Your task to perform on an android device: turn pop-ups on in chrome Image 0: 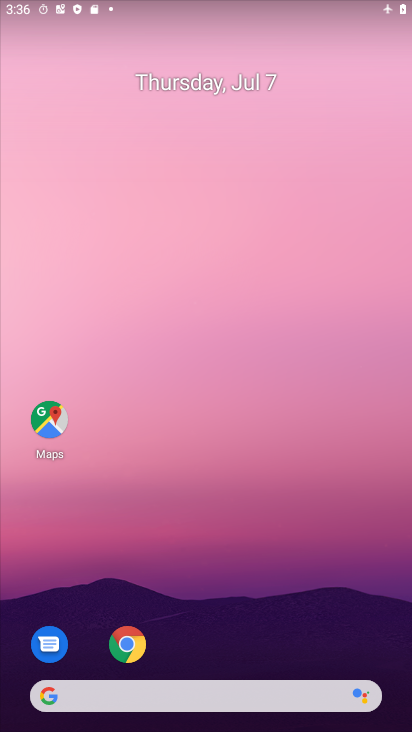
Step 0: drag from (217, 662) to (134, 84)
Your task to perform on an android device: turn pop-ups on in chrome Image 1: 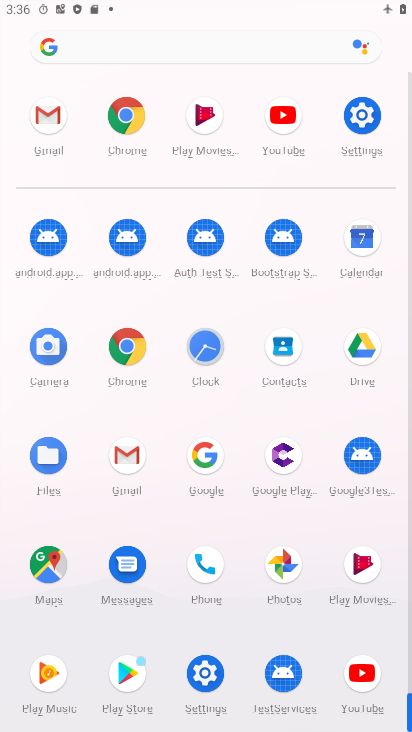
Step 1: click (128, 131)
Your task to perform on an android device: turn pop-ups on in chrome Image 2: 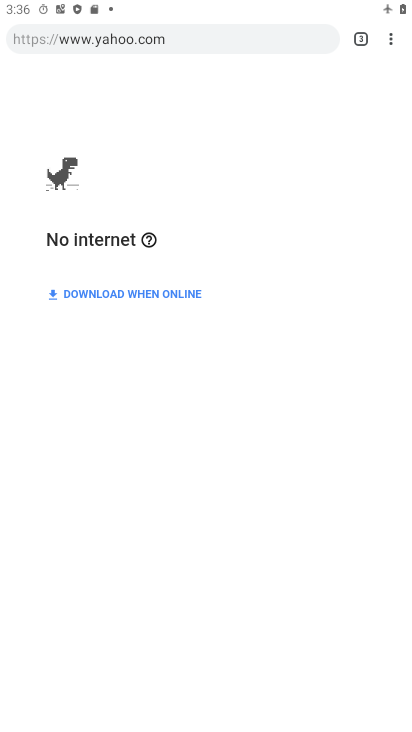
Step 2: click (385, 40)
Your task to perform on an android device: turn pop-ups on in chrome Image 3: 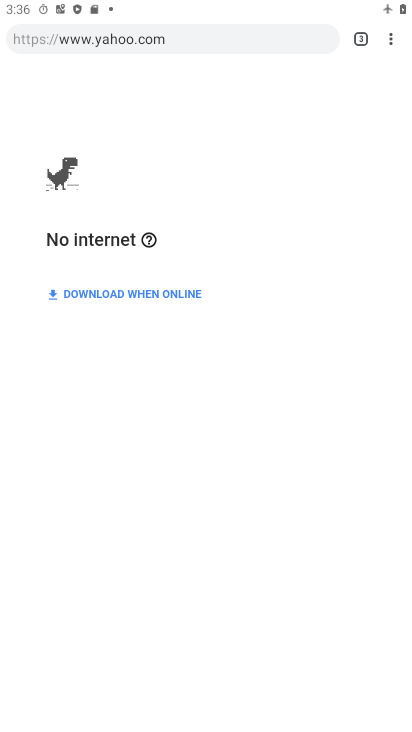
Step 3: press home button
Your task to perform on an android device: turn pop-ups on in chrome Image 4: 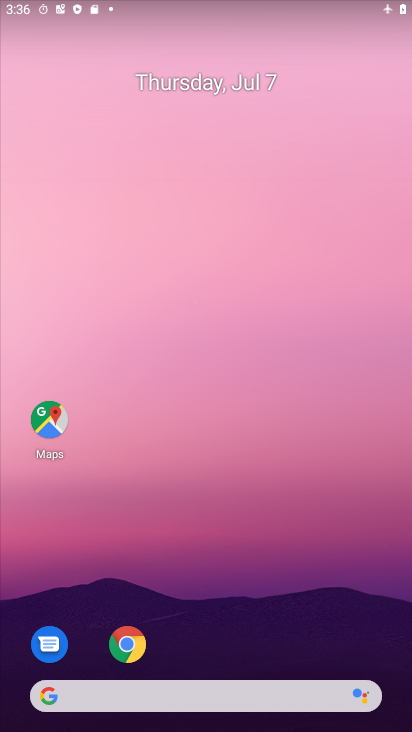
Step 4: drag from (206, 655) to (125, 263)
Your task to perform on an android device: turn pop-ups on in chrome Image 5: 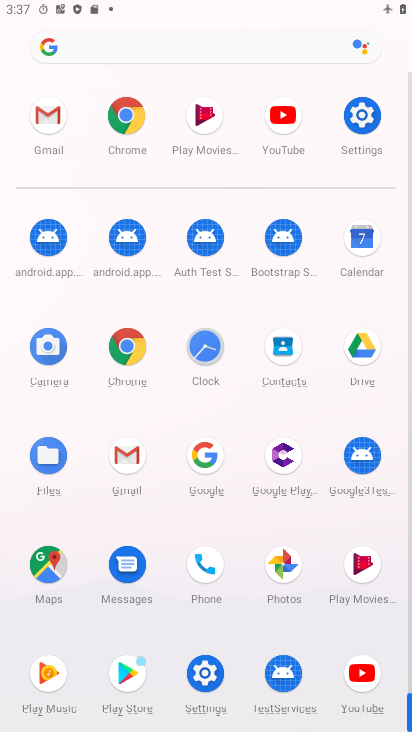
Step 5: click (124, 372)
Your task to perform on an android device: turn pop-ups on in chrome Image 6: 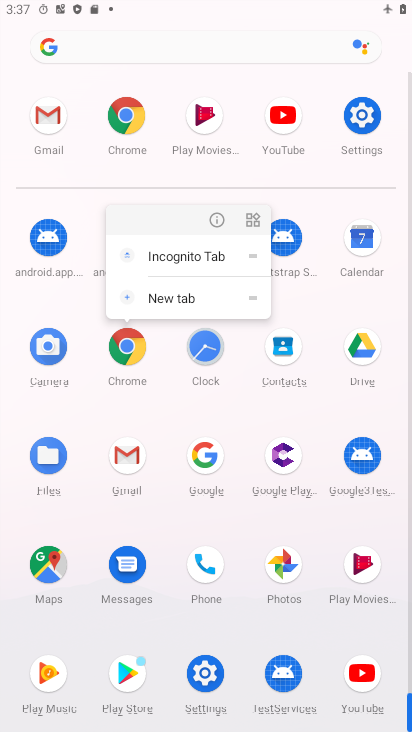
Step 6: click (126, 357)
Your task to perform on an android device: turn pop-ups on in chrome Image 7: 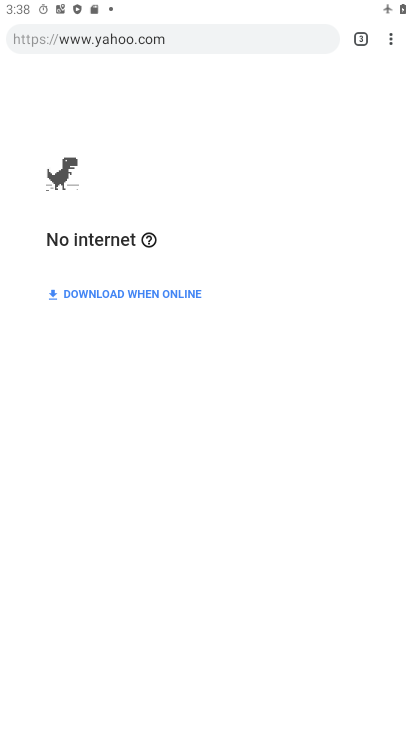
Step 7: click (386, 48)
Your task to perform on an android device: turn pop-ups on in chrome Image 8: 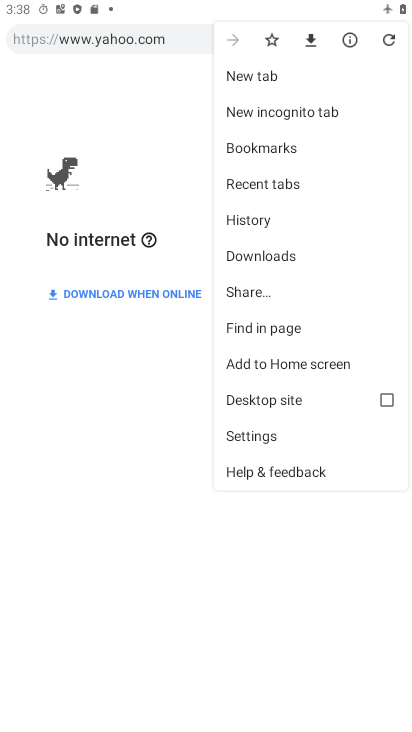
Step 8: click (266, 440)
Your task to perform on an android device: turn pop-ups on in chrome Image 9: 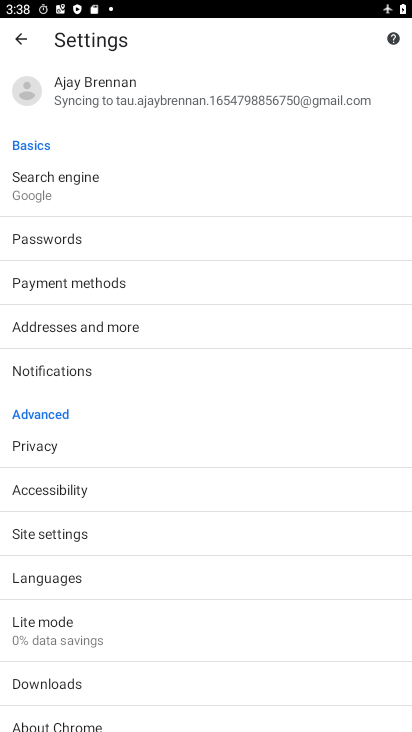
Step 9: click (30, 537)
Your task to perform on an android device: turn pop-ups on in chrome Image 10: 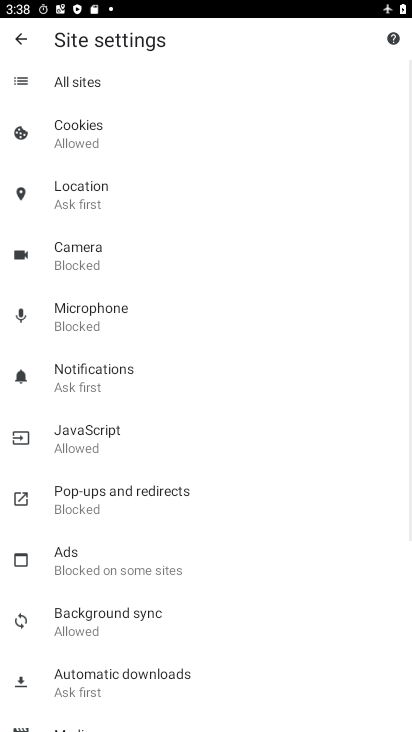
Step 10: click (77, 497)
Your task to perform on an android device: turn pop-ups on in chrome Image 11: 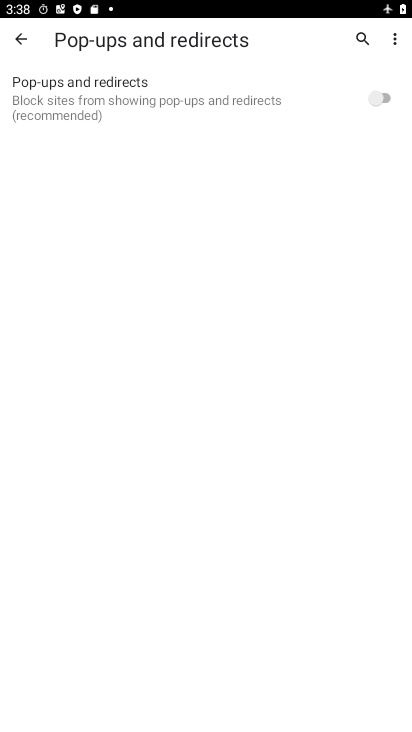
Step 11: click (381, 91)
Your task to perform on an android device: turn pop-ups on in chrome Image 12: 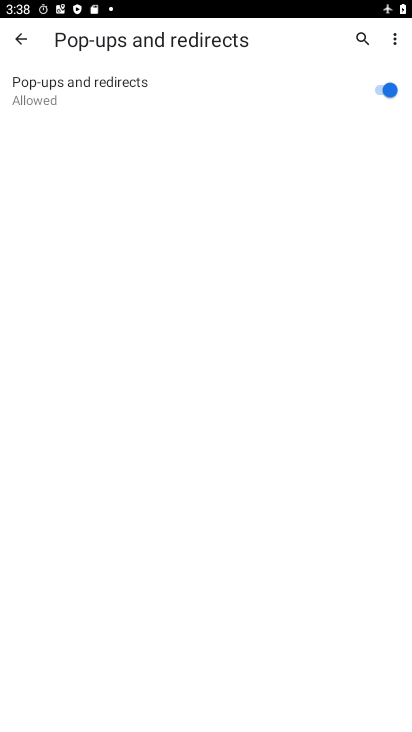
Step 12: task complete